Your task to perform on an android device: toggle wifi Image 0: 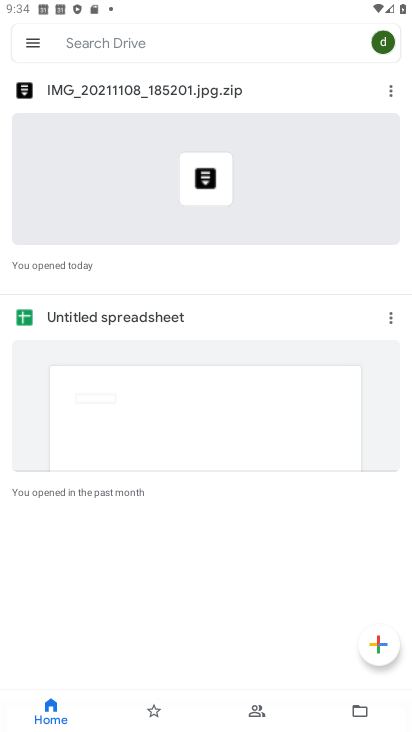
Step 0: drag from (170, 567) to (223, 209)
Your task to perform on an android device: toggle wifi Image 1: 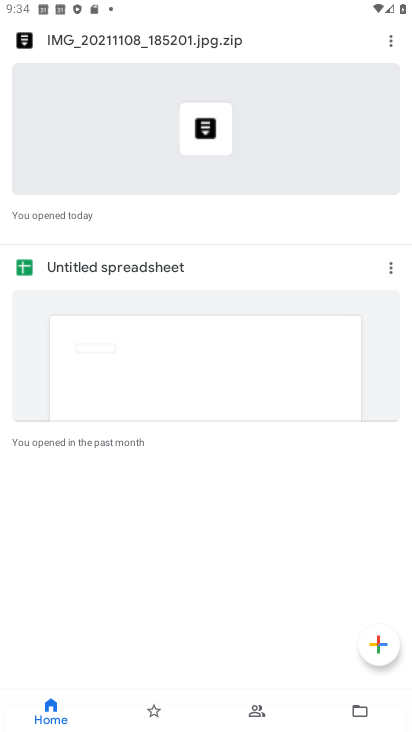
Step 1: drag from (235, 584) to (245, 246)
Your task to perform on an android device: toggle wifi Image 2: 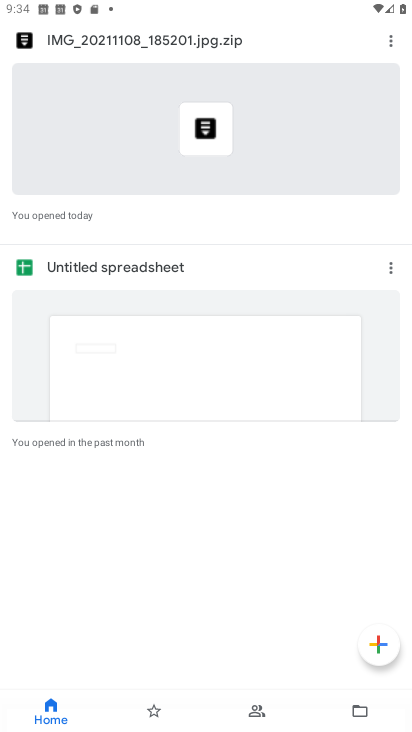
Step 2: press home button
Your task to perform on an android device: toggle wifi Image 3: 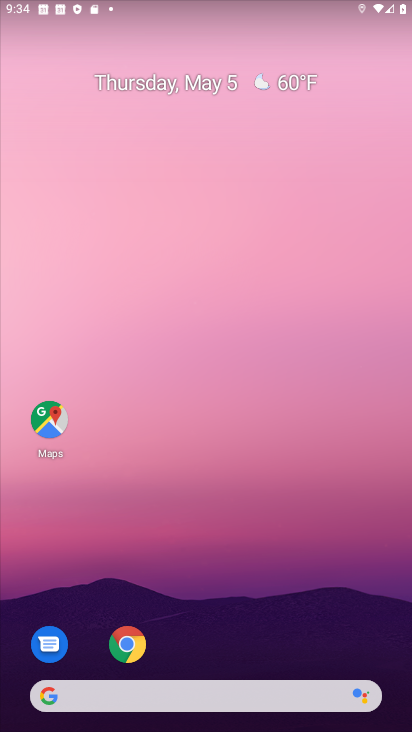
Step 3: drag from (198, 618) to (245, 89)
Your task to perform on an android device: toggle wifi Image 4: 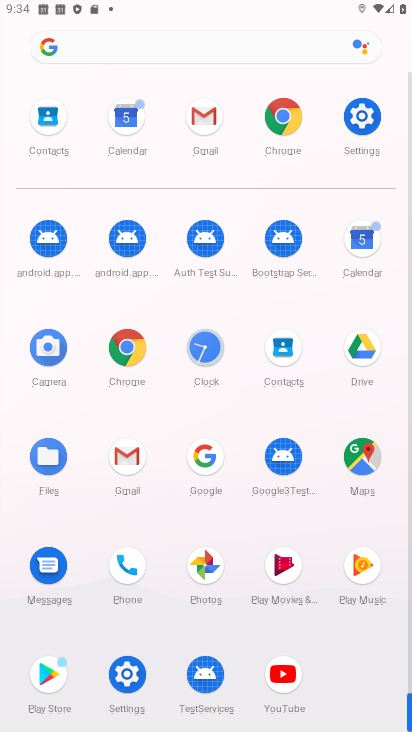
Step 4: click (367, 121)
Your task to perform on an android device: toggle wifi Image 5: 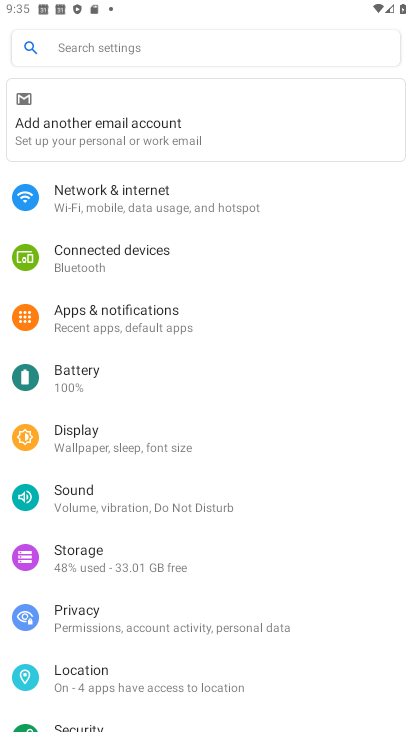
Step 5: click (139, 201)
Your task to perform on an android device: toggle wifi Image 6: 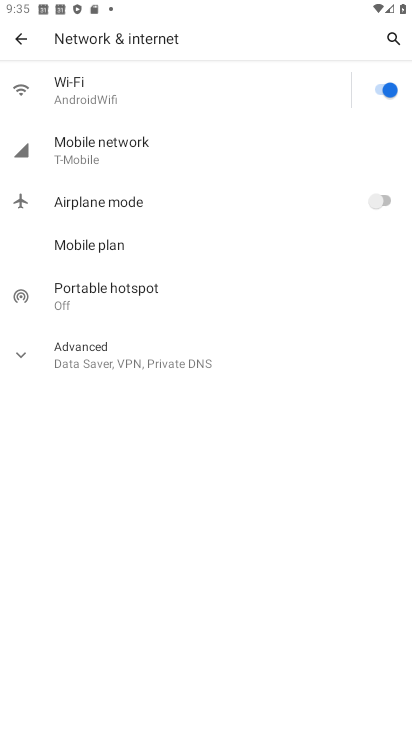
Step 6: click (271, 106)
Your task to perform on an android device: toggle wifi Image 7: 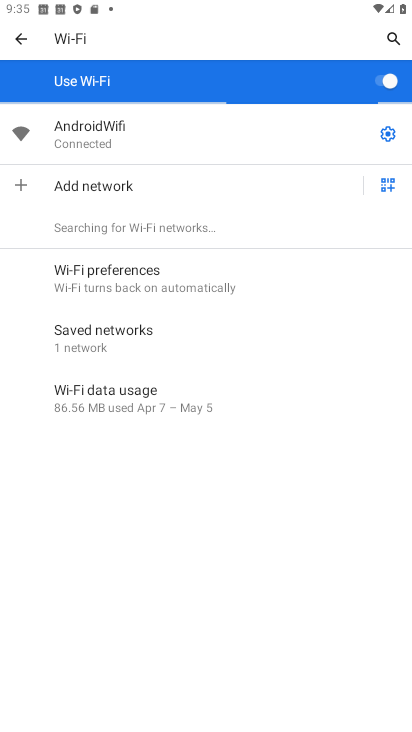
Step 7: drag from (235, 448) to (235, 219)
Your task to perform on an android device: toggle wifi Image 8: 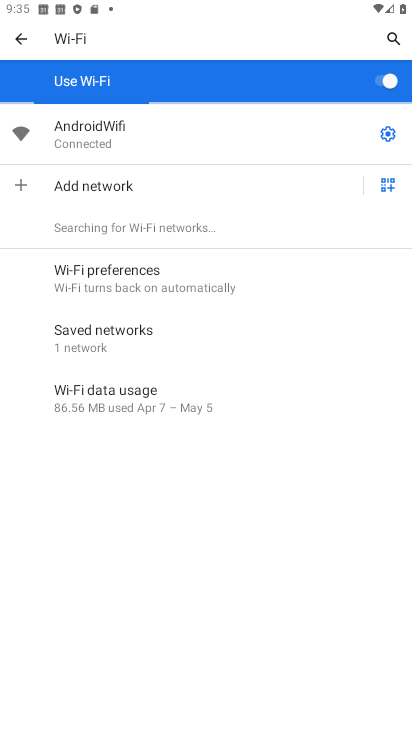
Step 8: click (379, 79)
Your task to perform on an android device: toggle wifi Image 9: 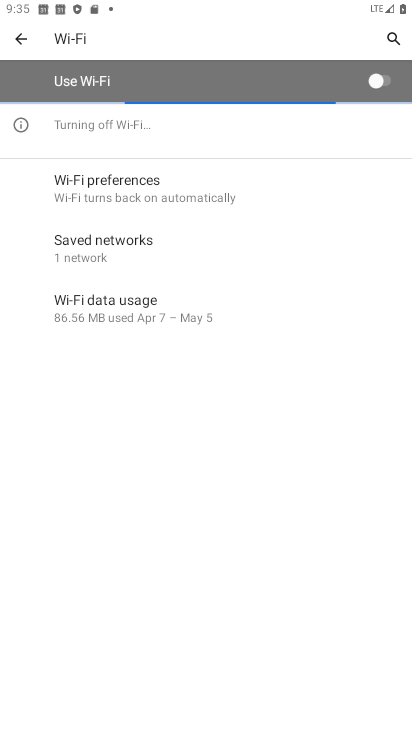
Step 9: task complete